Your task to perform on an android device: set default search engine in the chrome app Image 0: 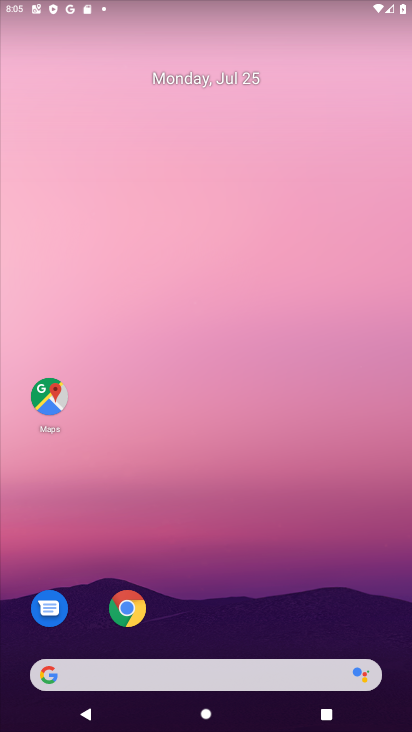
Step 0: drag from (212, 682) to (411, 10)
Your task to perform on an android device: set default search engine in the chrome app Image 1: 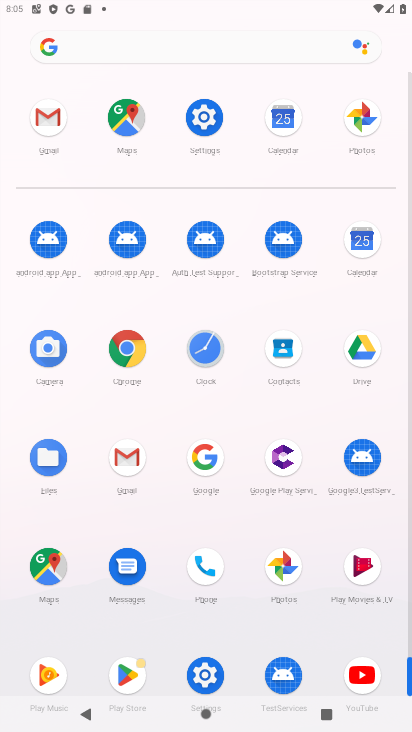
Step 1: click (133, 370)
Your task to perform on an android device: set default search engine in the chrome app Image 2: 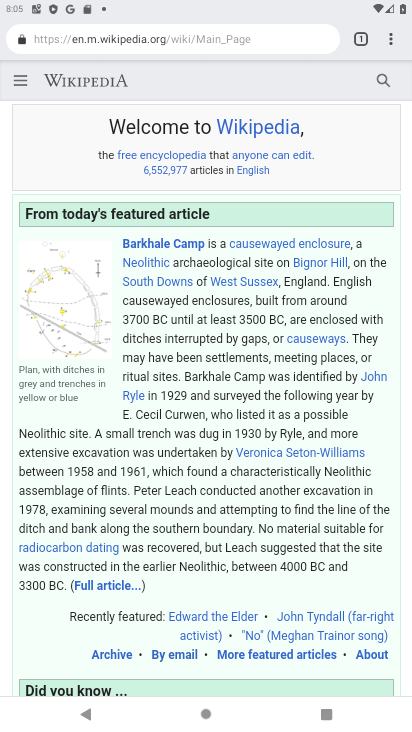
Step 2: click (392, 45)
Your task to perform on an android device: set default search engine in the chrome app Image 3: 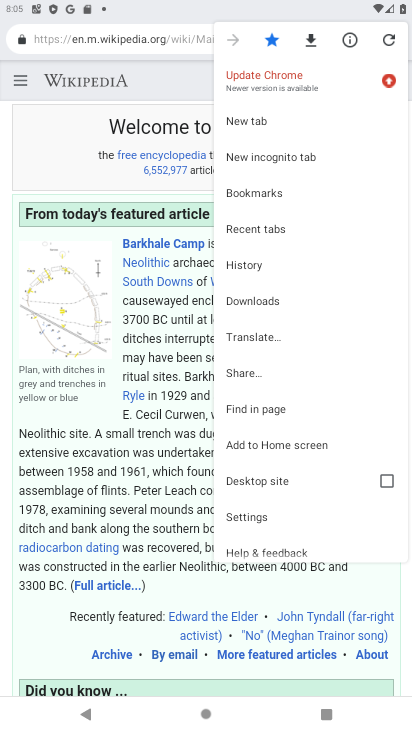
Step 3: click (256, 520)
Your task to perform on an android device: set default search engine in the chrome app Image 4: 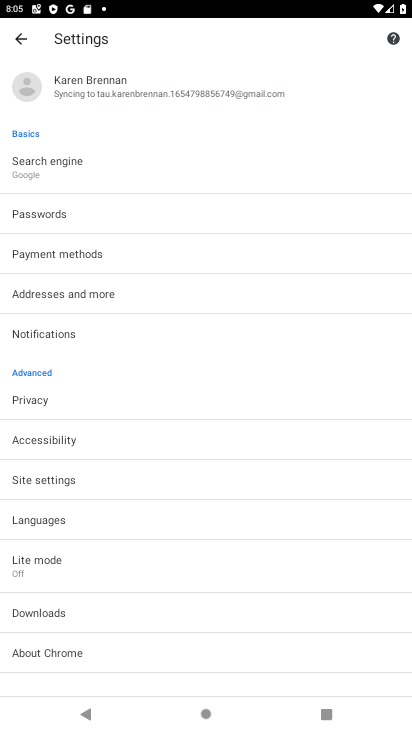
Step 4: click (53, 168)
Your task to perform on an android device: set default search engine in the chrome app Image 5: 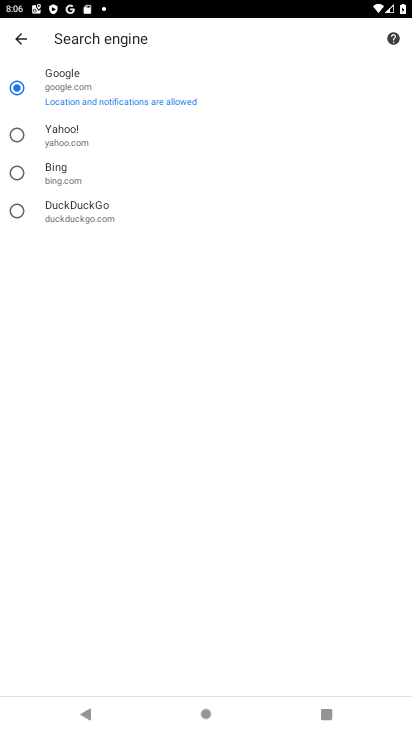
Step 5: task complete